Your task to perform on an android device: check data usage Image 0: 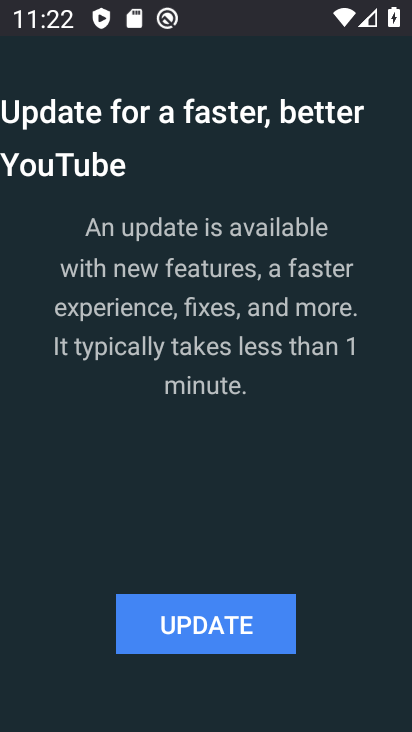
Step 0: press home button
Your task to perform on an android device: check data usage Image 1: 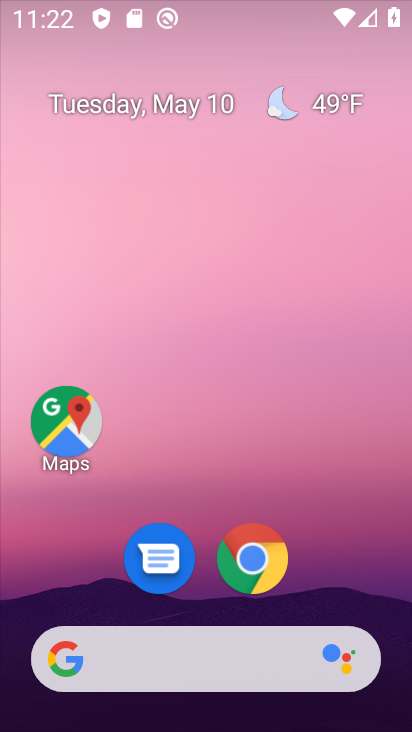
Step 1: drag from (330, 542) to (352, 70)
Your task to perform on an android device: check data usage Image 2: 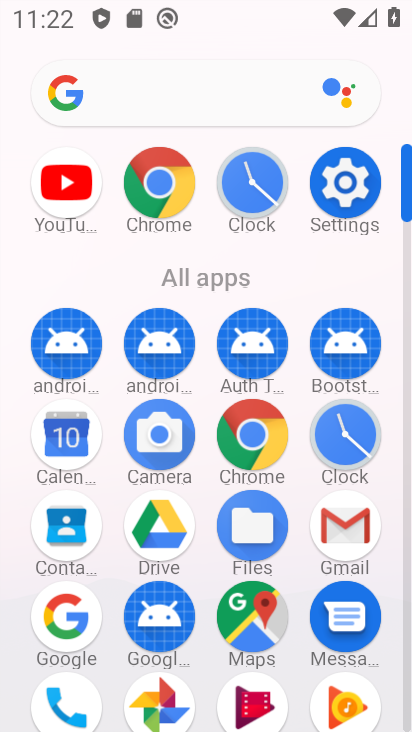
Step 2: drag from (382, 4) to (410, 493)
Your task to perform on an android device: check data usage Image 3: 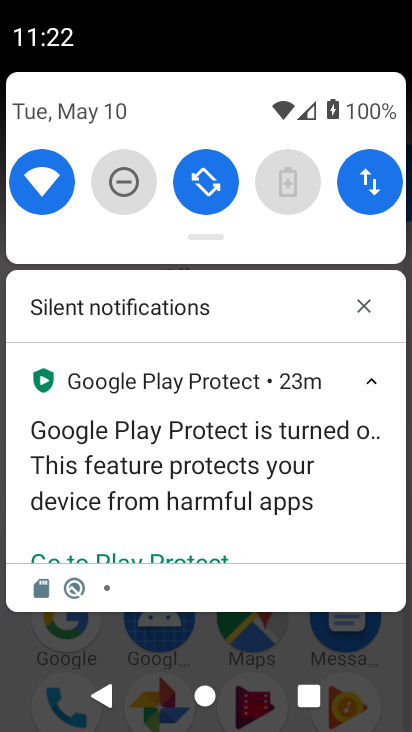
Step 3: click (376, 175)
Your task to perform on an android device: check data usage Image 4: 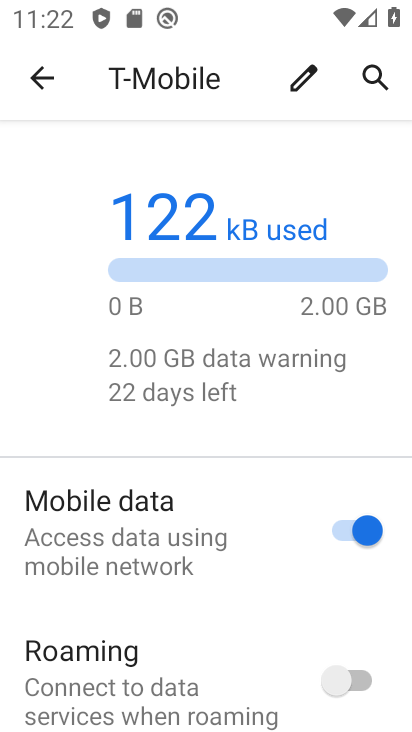
Step 4: task complete